Your task to perform on an android device: turn on javascript in the chrome app Image 0: 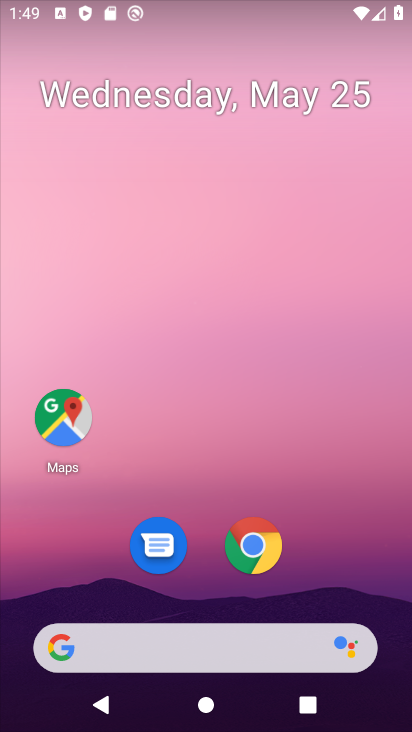
Step 0: click (250, 566)
Your task to perform on an android device: turn on javascript in the chrome app Image 1: 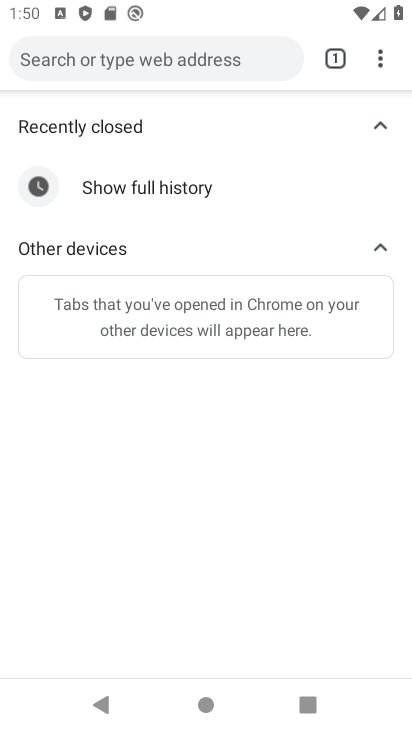
Step 1: task complete